Your task to perform on an android device: Go to Android settings Image 0: 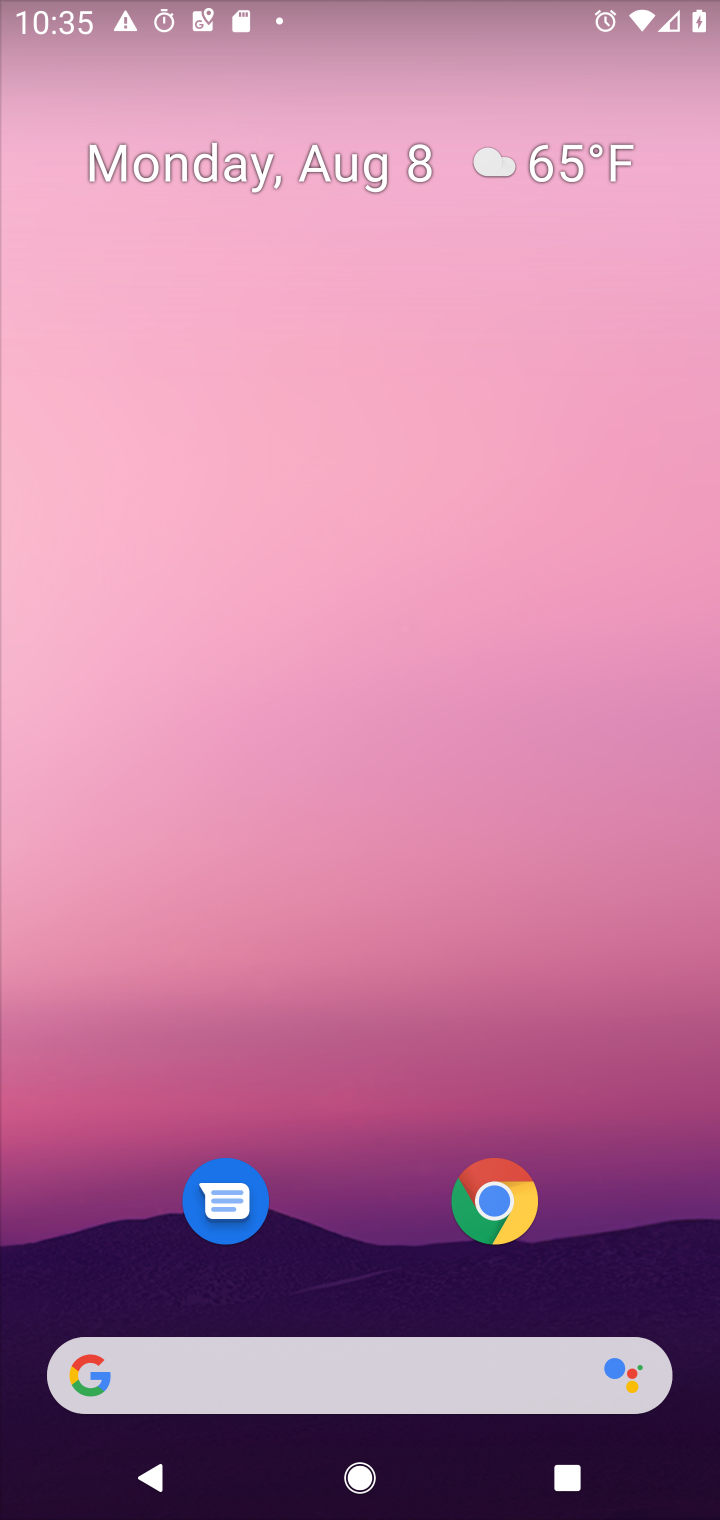
Step 0: press home button
Your task to perform on an android device: Go to Android settings Image 1: 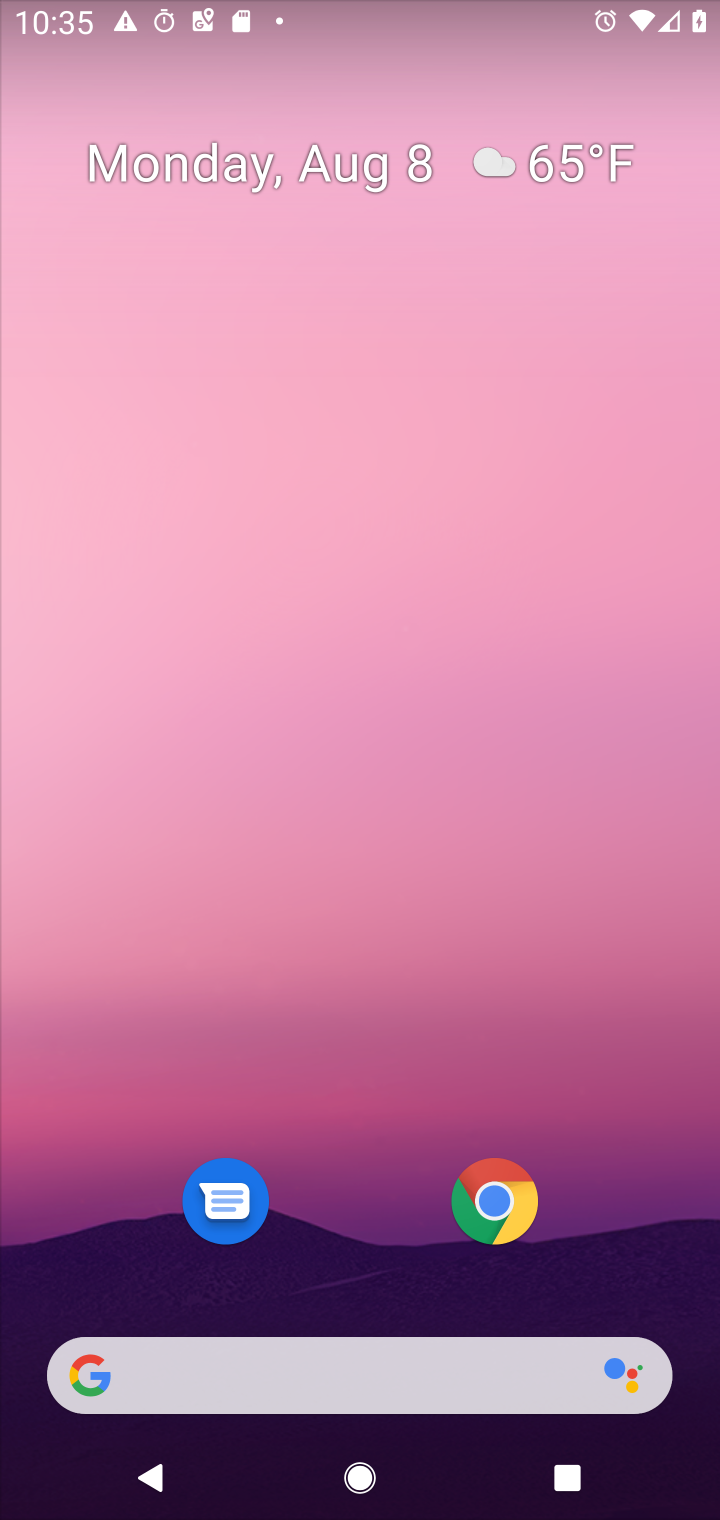
Step 1: drag from (397, 1281) to (410, 272)
Your task to perform on an android device: Go to Android settings Image 2: 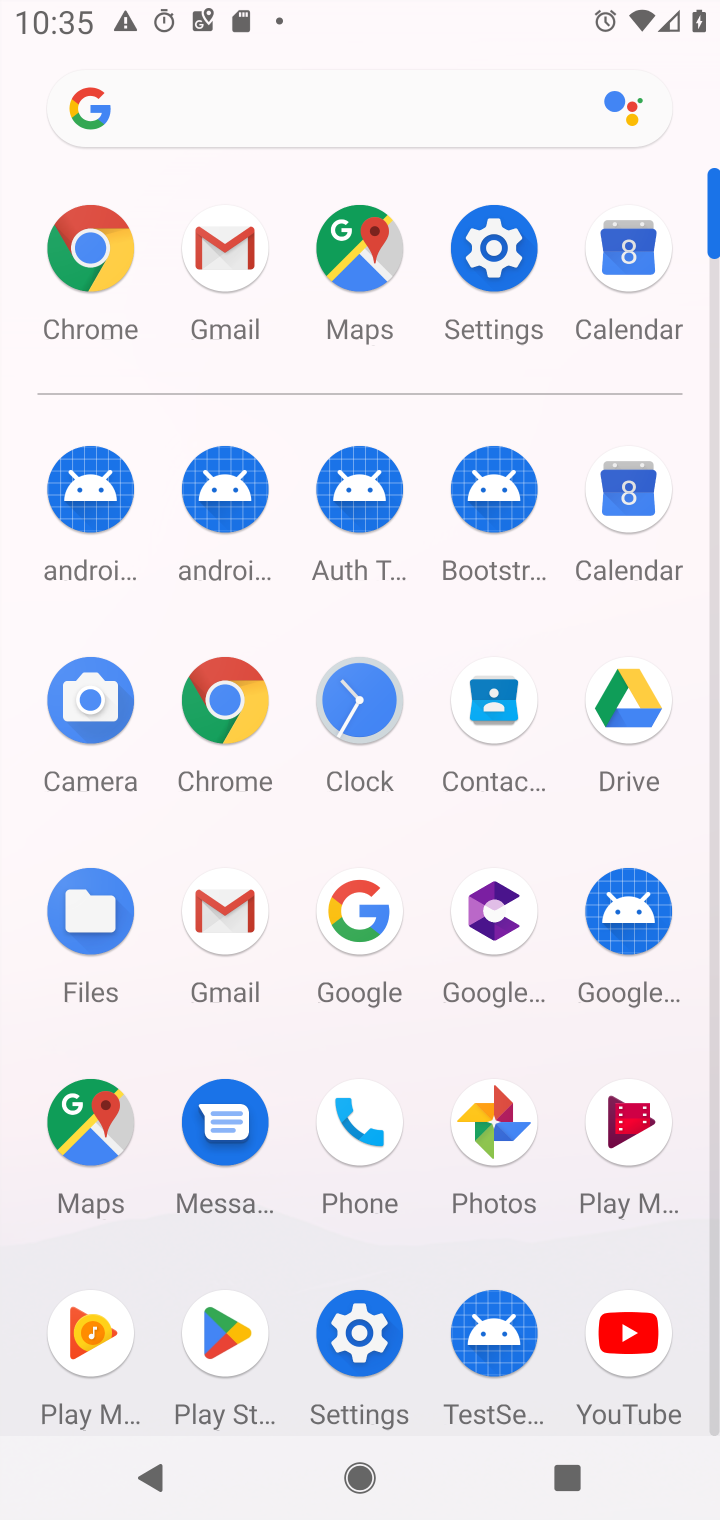
Step 2: click (492, 255)
Your task to perform on an android device: Go to Android settings Image 3: 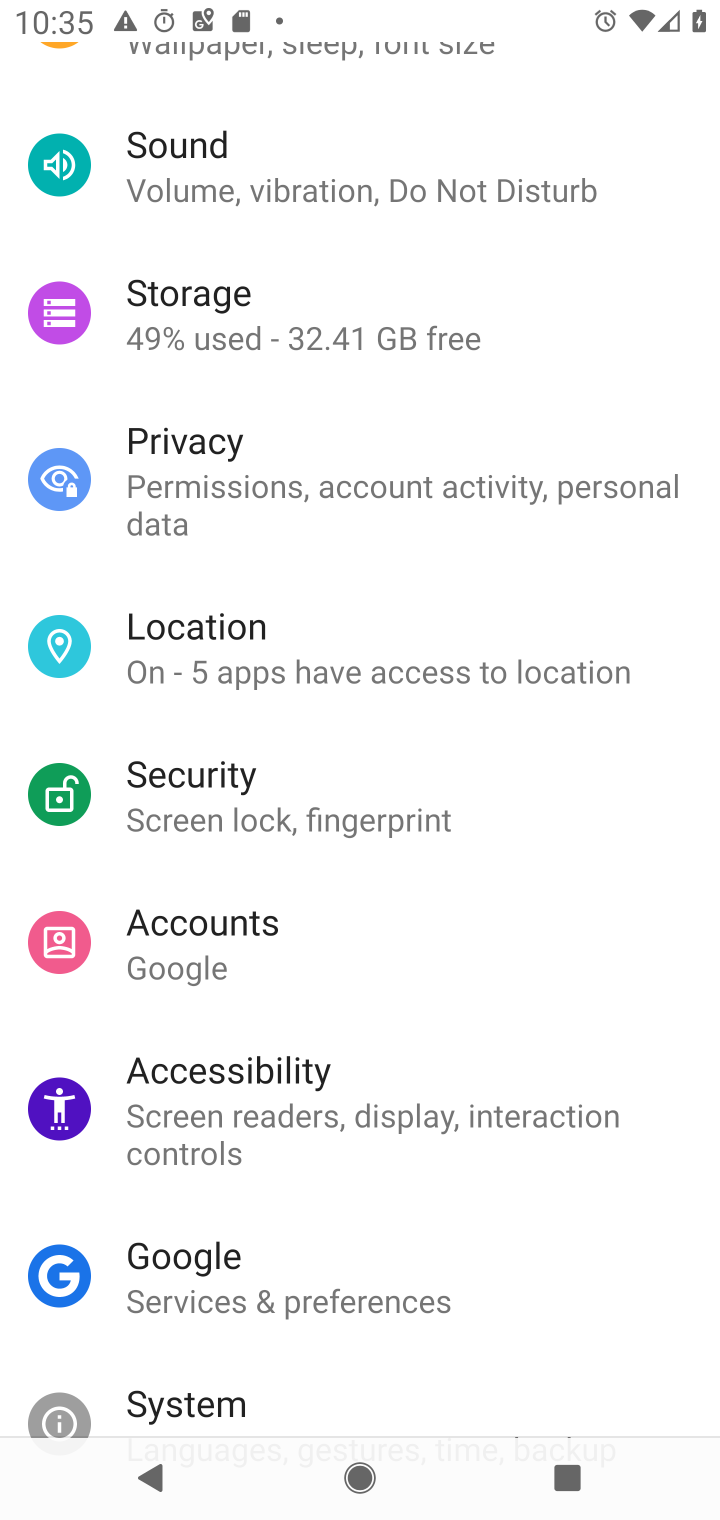
Step 3: drag from (617, 807) to (679, 594)
Your task to perform on an android device: Go to Android settings Image 4: 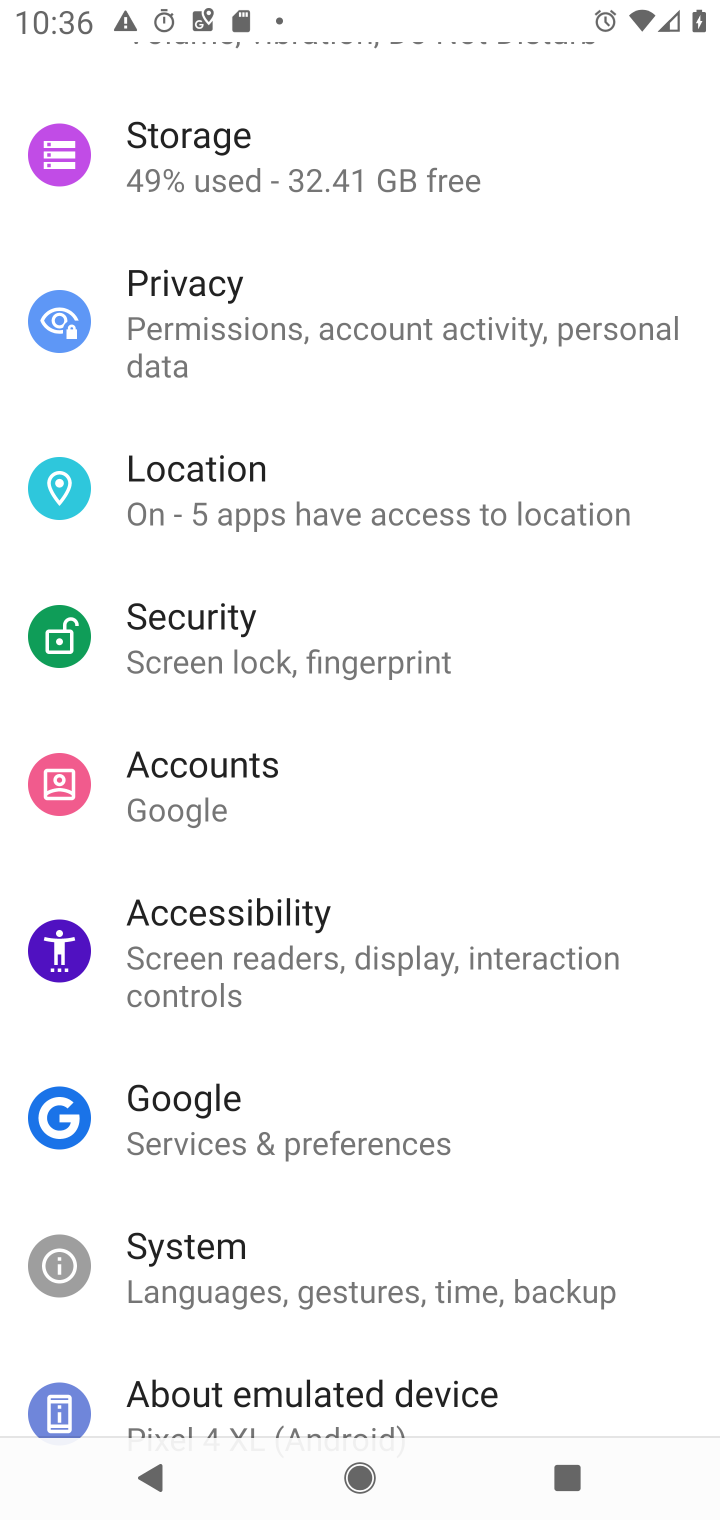
Step 4: drag from (605, 994) to (596, 669)
Your task to perform on an android device: Go to Android settings Image 5: 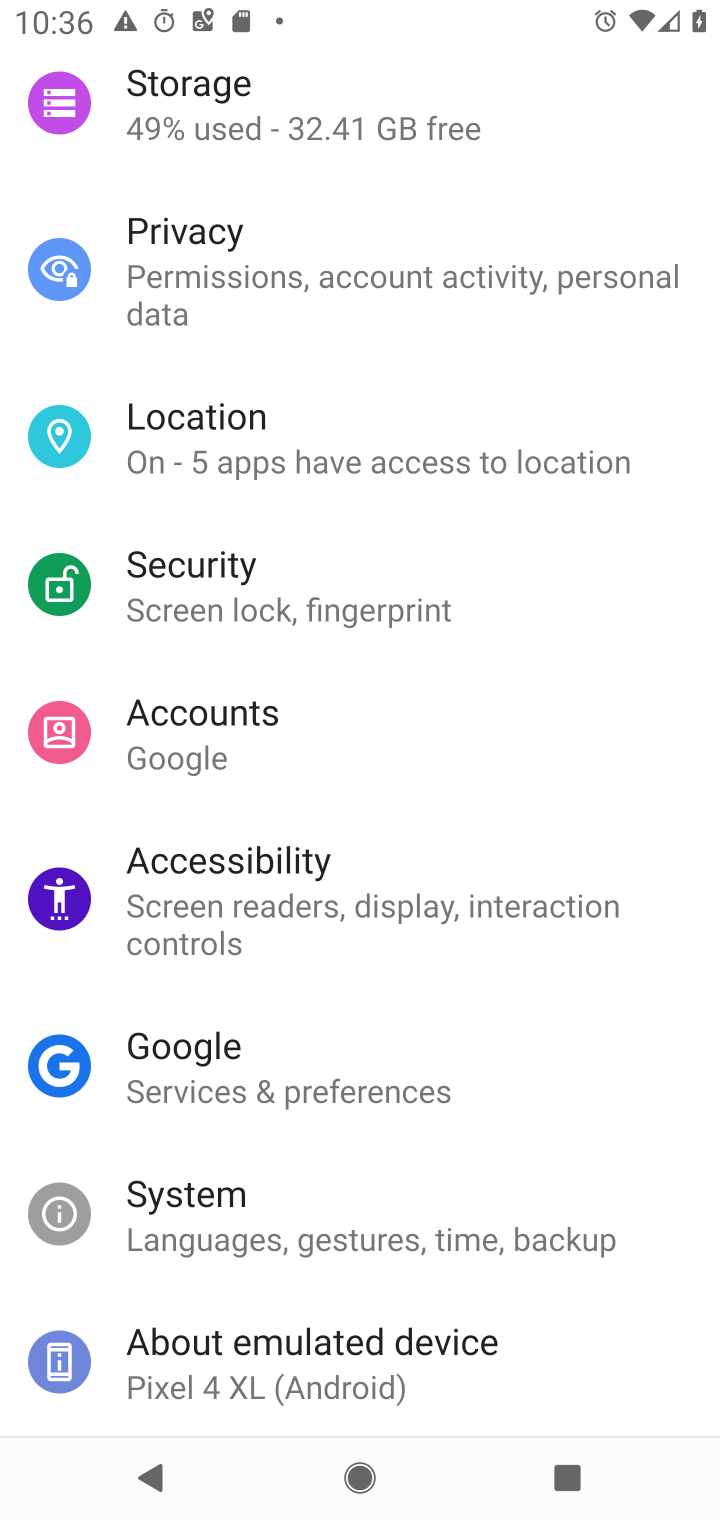
Step 5: click (508, 1212)
Your task to perform on an android device: Go to Android settings Image 6: 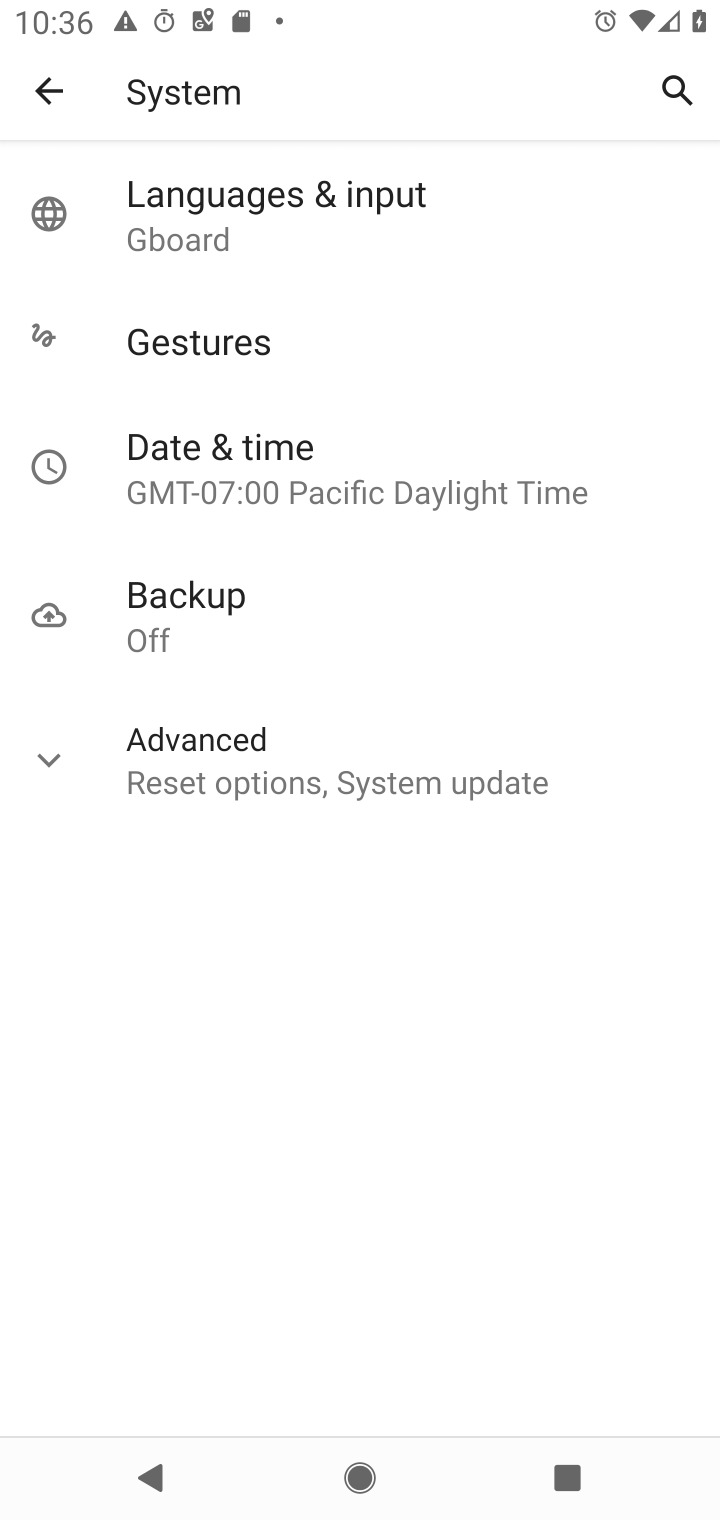
Step 6: click (424, 754)
Your task to perform on an android device: Go to Android settings Image 7: 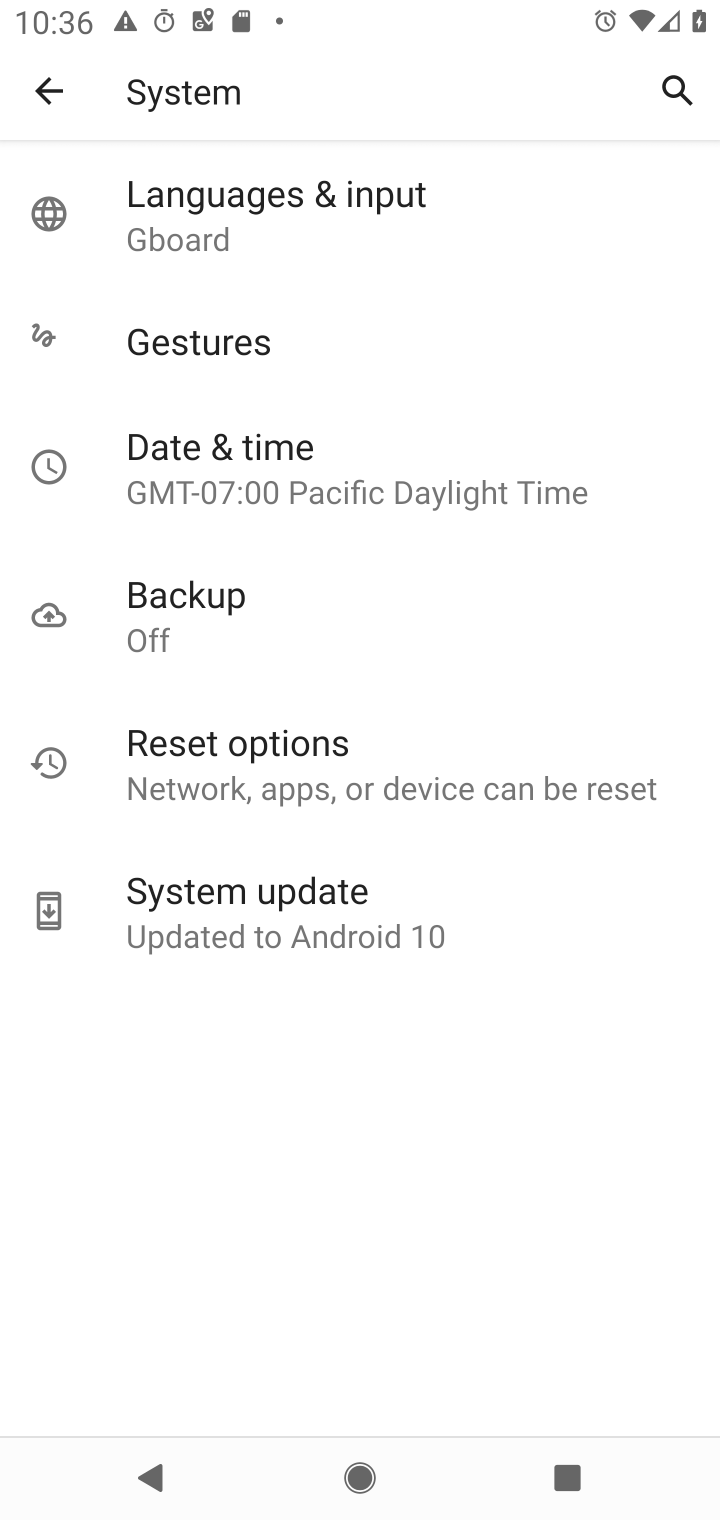
Step 7: task complete